Your task to perform on an android device: Open the stopwatch Image 0: 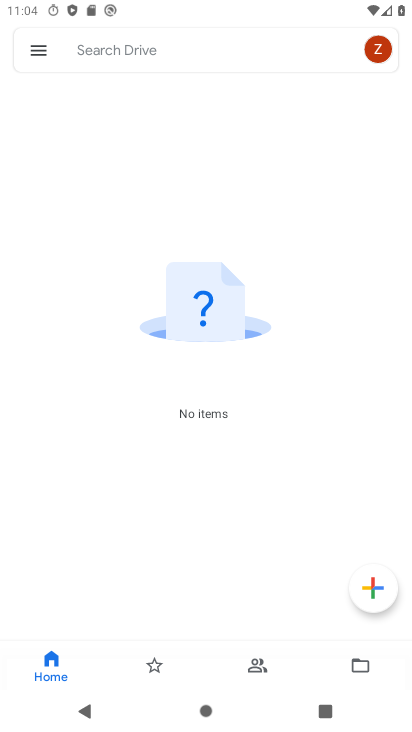
Step 0: press home button
Your task to perform on an android device: Open the stopwatch Image 1: 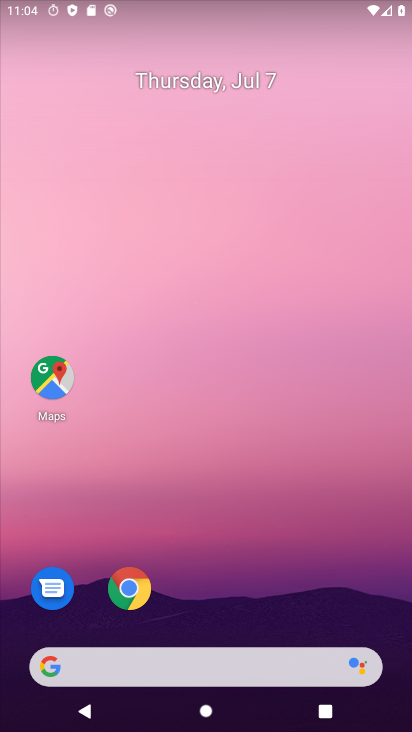
Step 1: drag from (314, 564) to (337, 54)
Your task to perform on an android device: Open the stopwatch Image 2: 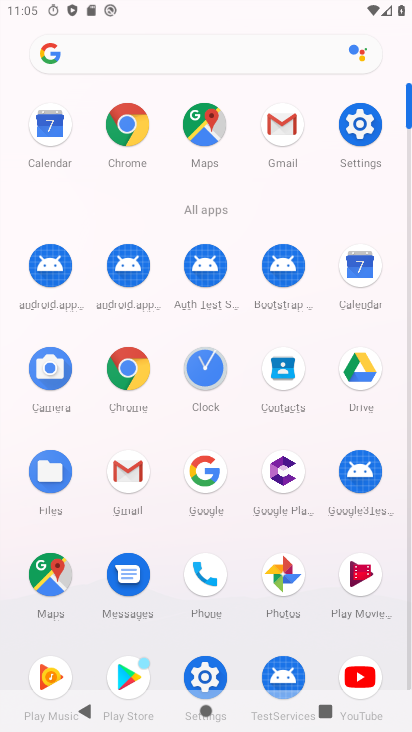
Step 2: click (203, 375)
Your task to perform on an android device: Open the stopwatch Image 3: 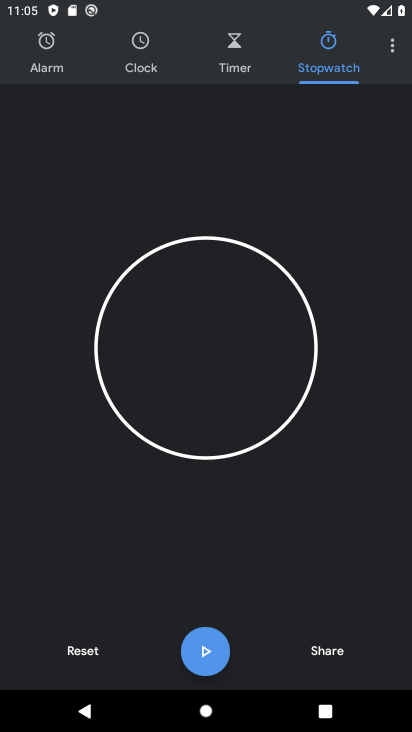
Step 3: task complete